Your task to perform on an android device: turn off wifi Image 0: 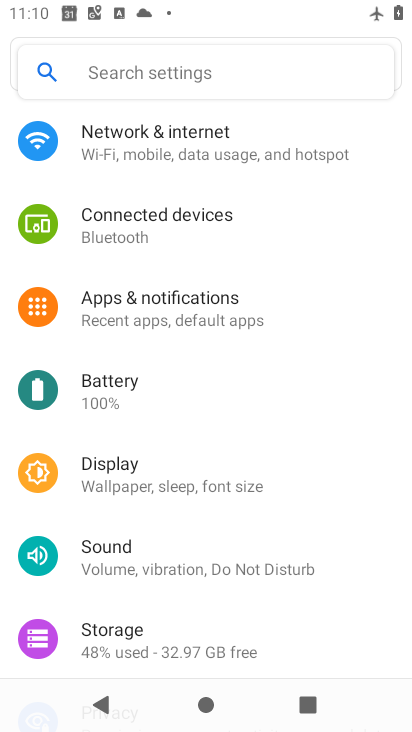
Step 0: click (142, 139)
Your task to perform on an android device: turn off wifi Image 1: 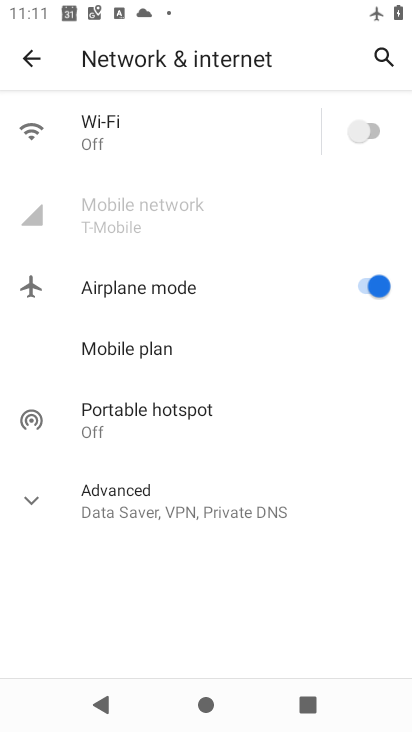
Step 1: task complete